Your task to perform on an android device: turn off translation in the chrome app Image 0: 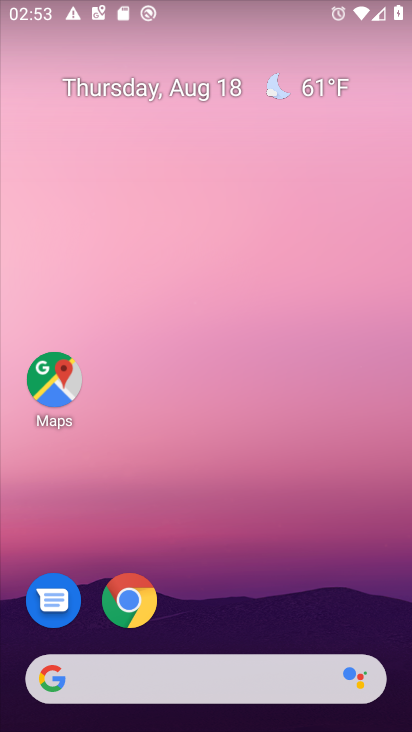
Step 0: press home button
Your task to perform on an android device: turn off translation in the chrome app Image 1: 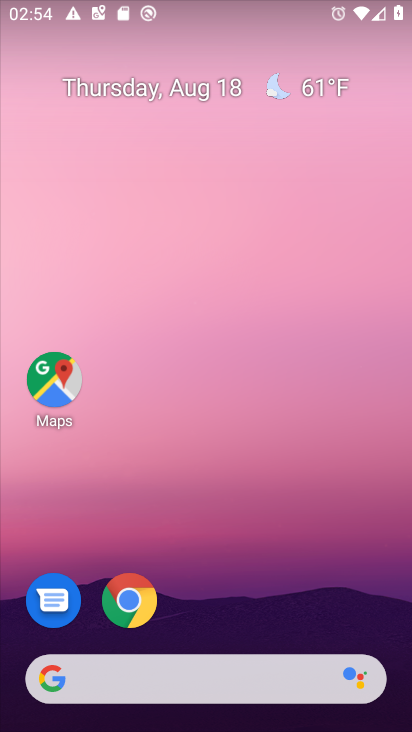
Step 1: click (123, 604)
Your task to perform on an android device: turn off translation in the chrome app Image 2: 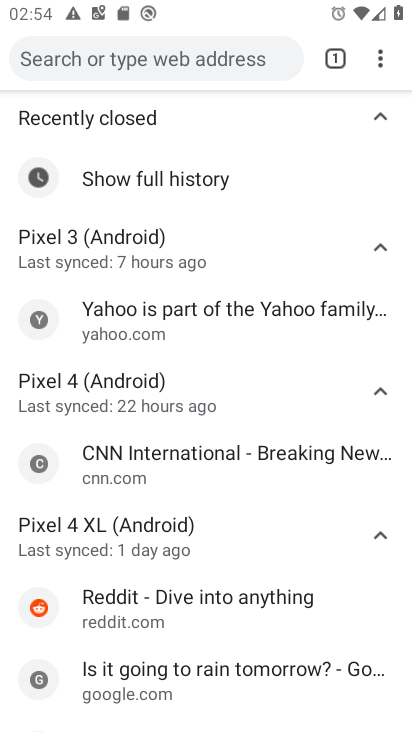
Step 2: drag from (382, 63) to (143, 498)
Your task to perform on an android device: turn off translation in the chrome app Image 3: 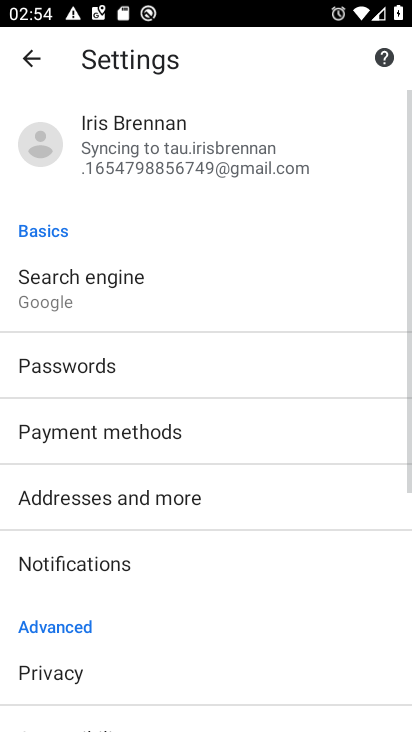
Step 3: drag from (230, 655) to (241, 239)
Your task to perform on an android device: turn off translation in the chrome app Image 4: 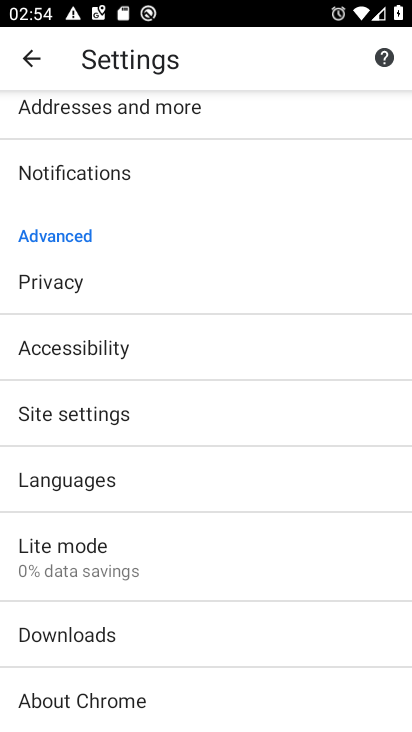
Step 4: click (47, 485)
Your task to perform on an android device: turn off translation in the chrome app Image 5: 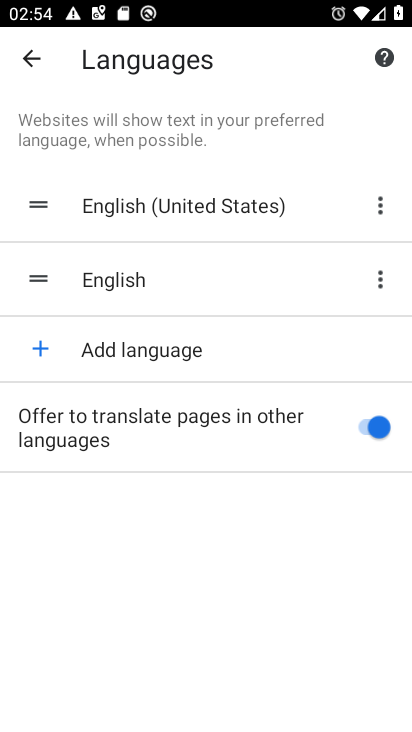
Step 5: click (373, 424)
Your task to perform on an android device: turn off translation in the chrome app Image 6: 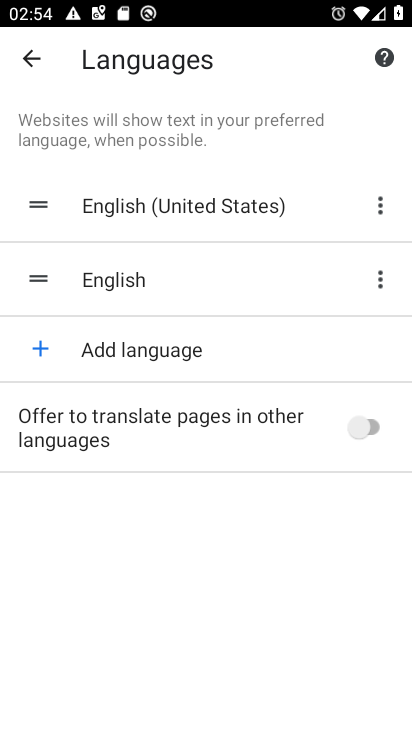
Step 6: task complete